Your task to perform on an android device: Search for seafood restaurants on Google Maps Image 0: 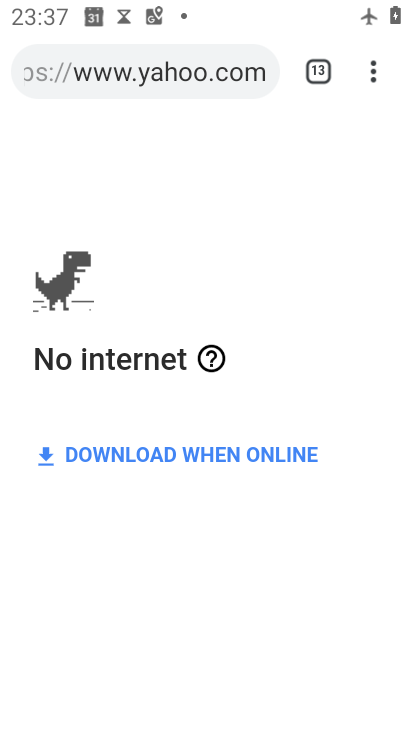
Step 0: press home button
Your task to perform on an android device: Search for seafood restaurants on Google Maps Image 1: 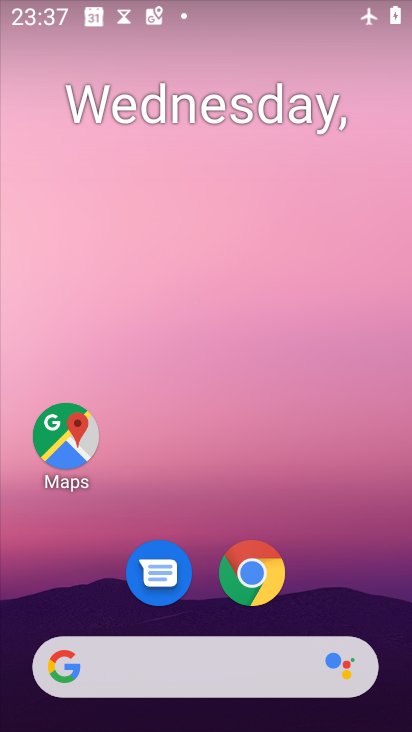
Step 1: click (66, 424)
Your task to perform on an android device: Search for seafood restaurants on Google Maps Image 2: 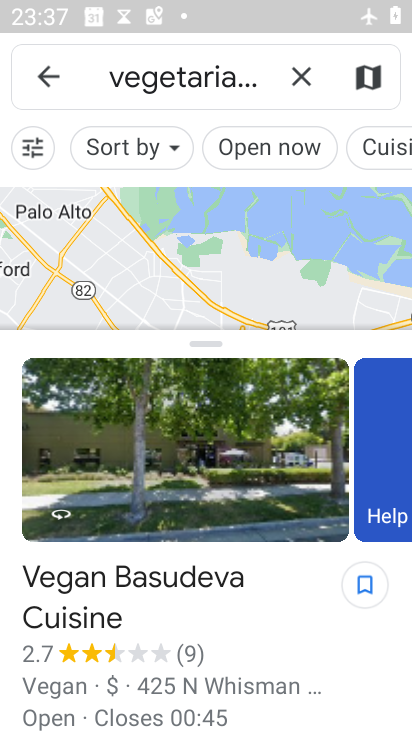
Step 2: click (295, 70)
Your task to perform on an android device: Search for seafood restaurants on Google Maps Image 3: 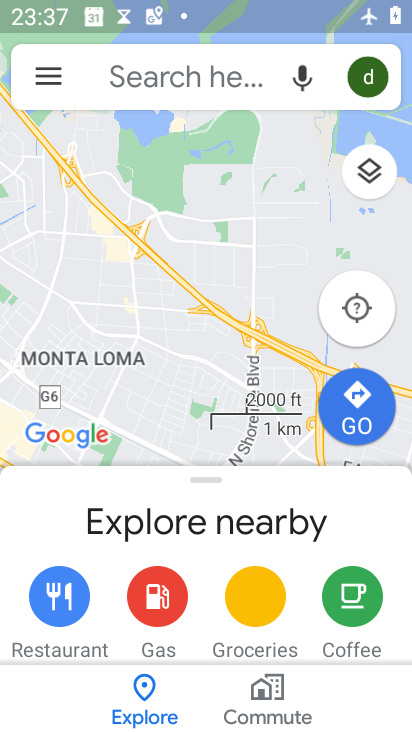
Step 3: click (181, 83)
Your task to perform on an android device: Search for seafood restaurants on Google Maps Image 4: 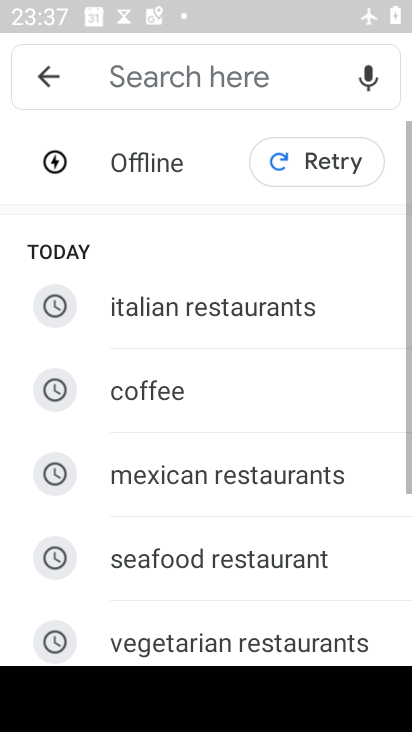
Step 4: click (209, 559)
Your task to perform on an android device: Search for seafood restaurants on Google Maps Image 5: 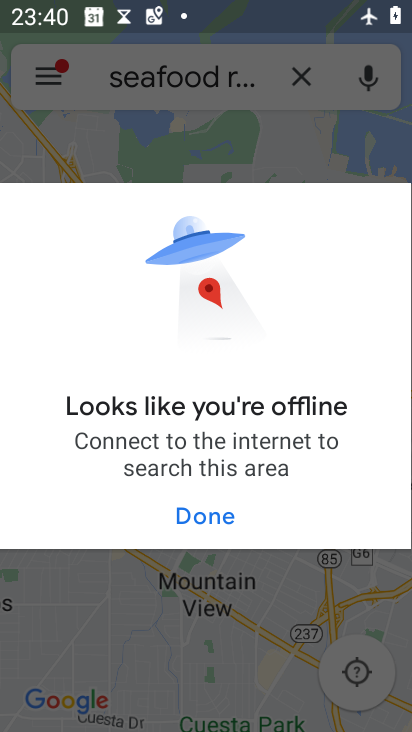
Step 5: task complete